Your task to perform on an android device: Open Youtube and go to "Your channel" Image 0: 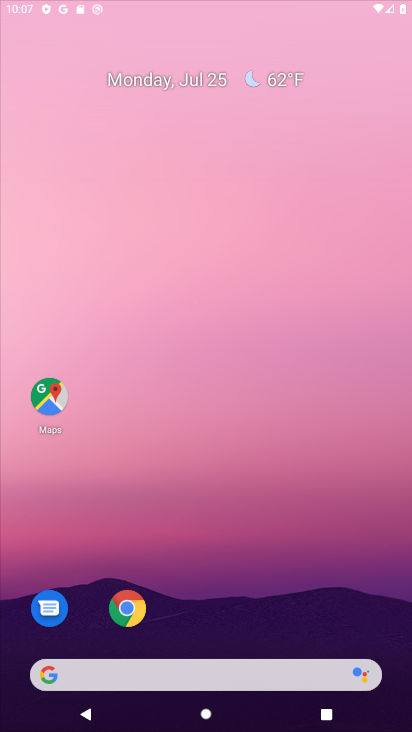
Step 0: drag from (275, 427) to (276, 171)
Your task to perform on an android device: Open Youtube and go to "Your channel" Image 1: 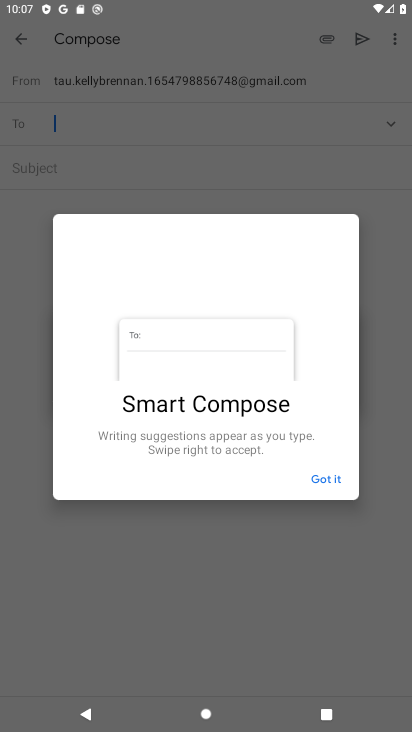
Step 1: press home button
Your task to perform on an android device: Open Youtube and go to "Your channel" Image 2: 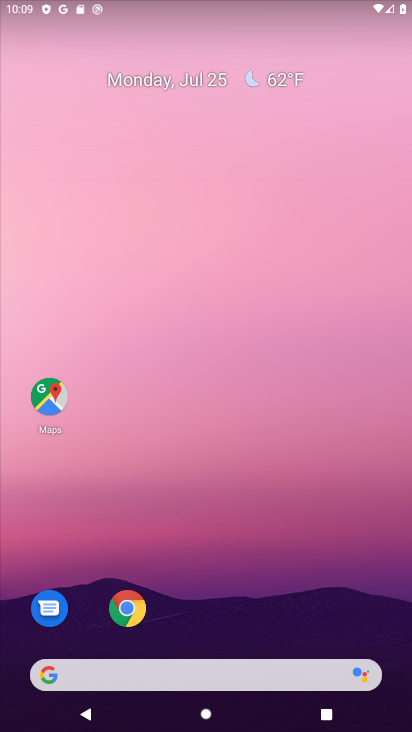
Step 2: drag from (273, 555) to (272, 182)
Your task to perform on an android device: Open Youtube and go to "Your channel" Image 3: 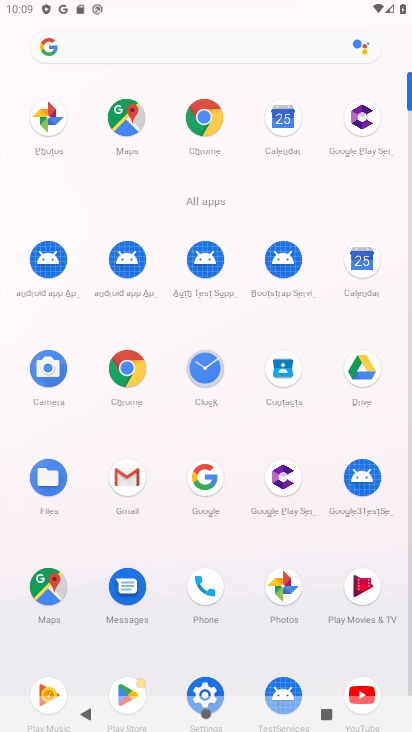
Step 3: click (357, 691)
Your task to perform on an android device: Open Youtube and go to "Your channel" Image 4: 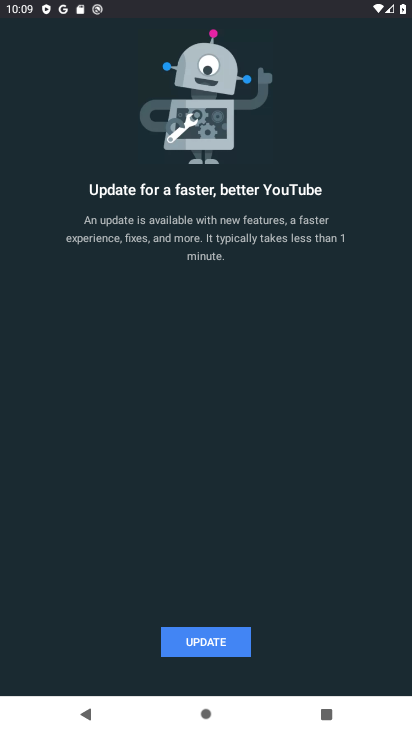
Step 4: task complete